Your task to perform on an android device: turn off notifications in google photos Image 0: 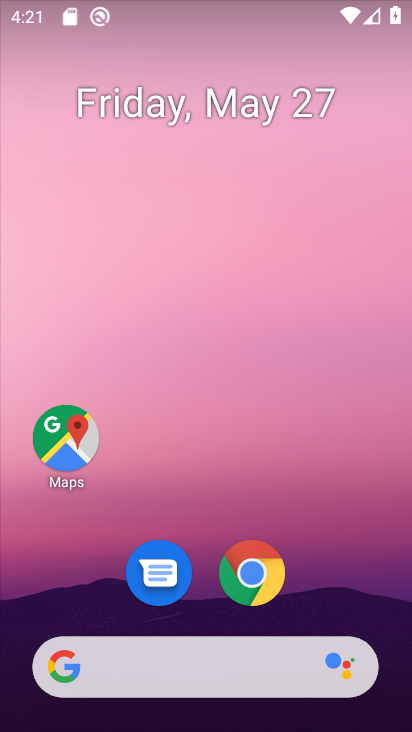
Step 0: drag from (222, 505) to (233, 3)
Your task to perform on an android device: turn off notifications in google photos Image 1: 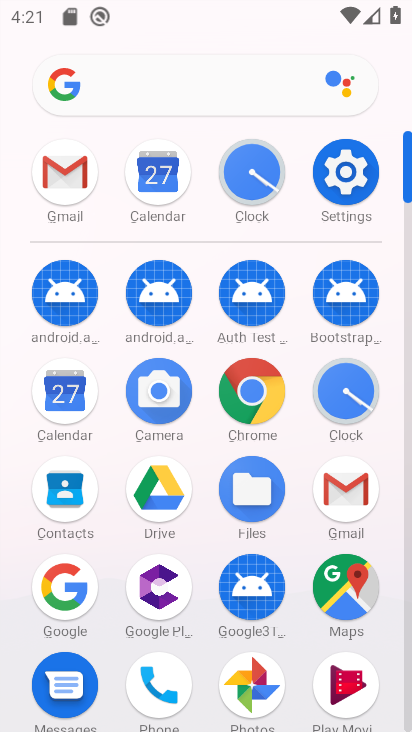
Step 1: click (338, 180)
Your task to perform on an android device: turn off notifications in google photos Image 2: 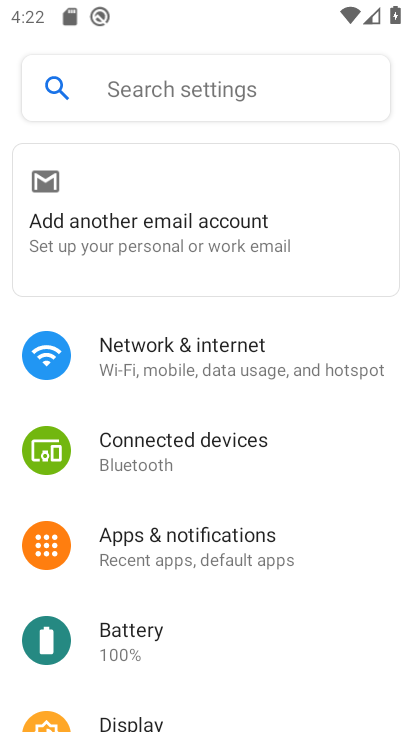
Step 2: click (234, 543)
Your task to perform on an android device: turn off notifications in google photos Image 3: 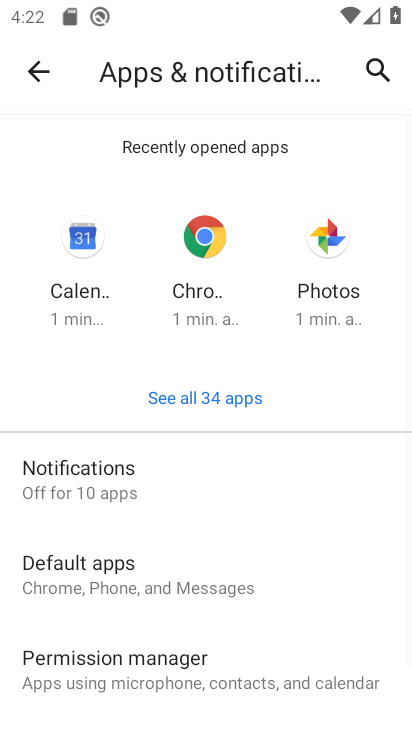
Step 3: click (342, 244)
Your task to perform on an android device: turn off notifications in google photos Image 4: 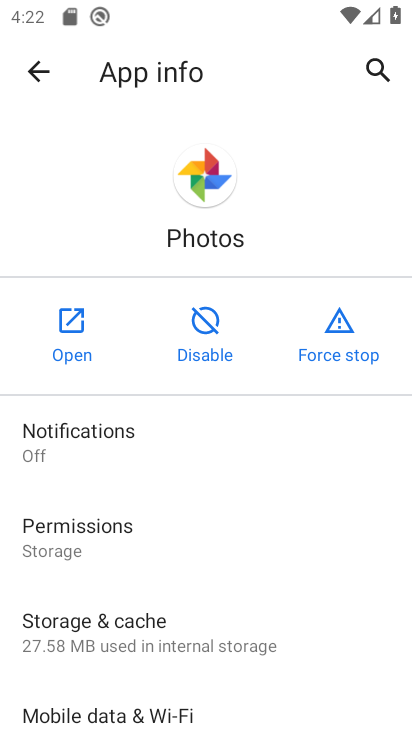
Step 4: click (154, 430)
Your task to perform on an android device: turn off notifications in google photos Image 5: 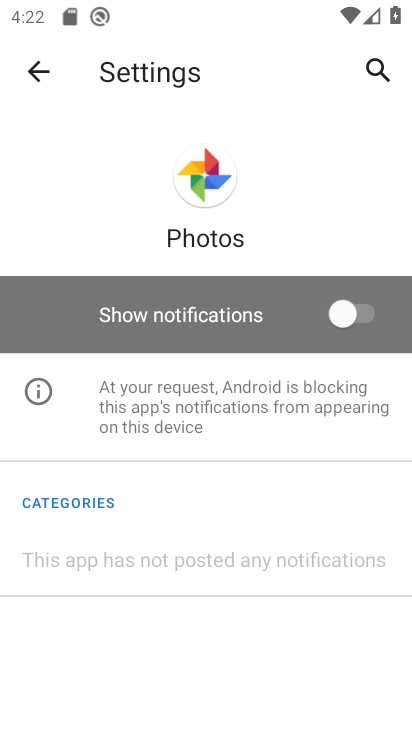
Step 5: task complete